Your task to perform on an android device: Open Amazon Image 0: 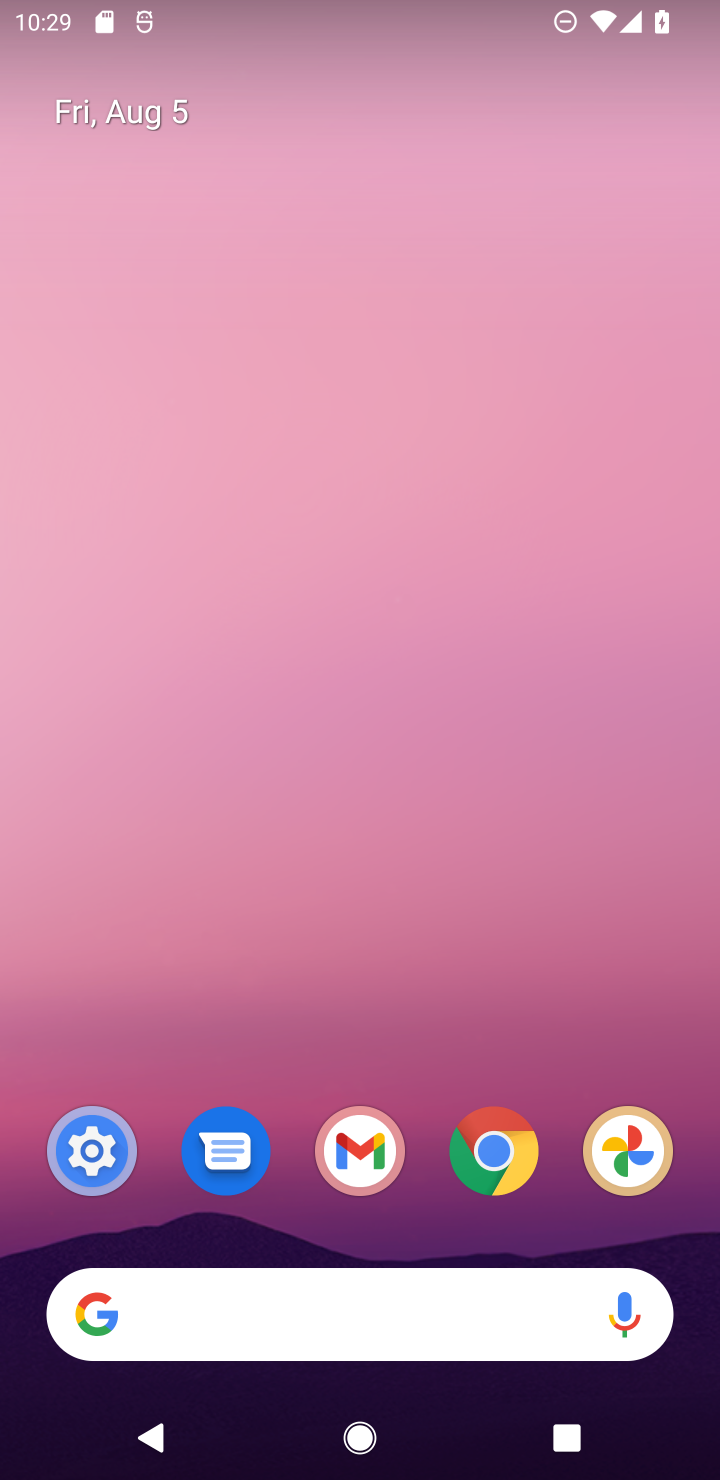
Step 0: click (479, 1138)
Your task to perform on an android device: Open Amazon Image 1: 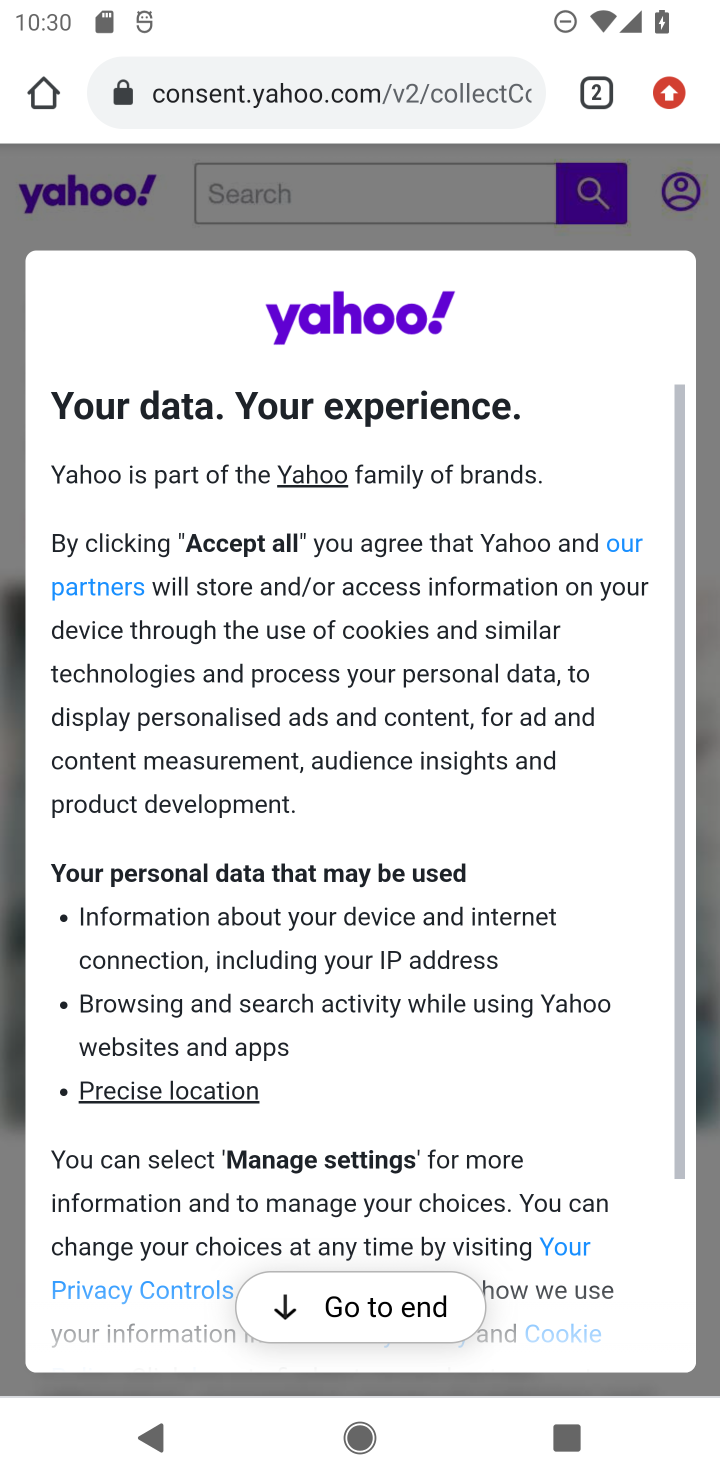
Step 1: click (369, 86)
Your task to perform on an android device: Open Amazon Image 2: 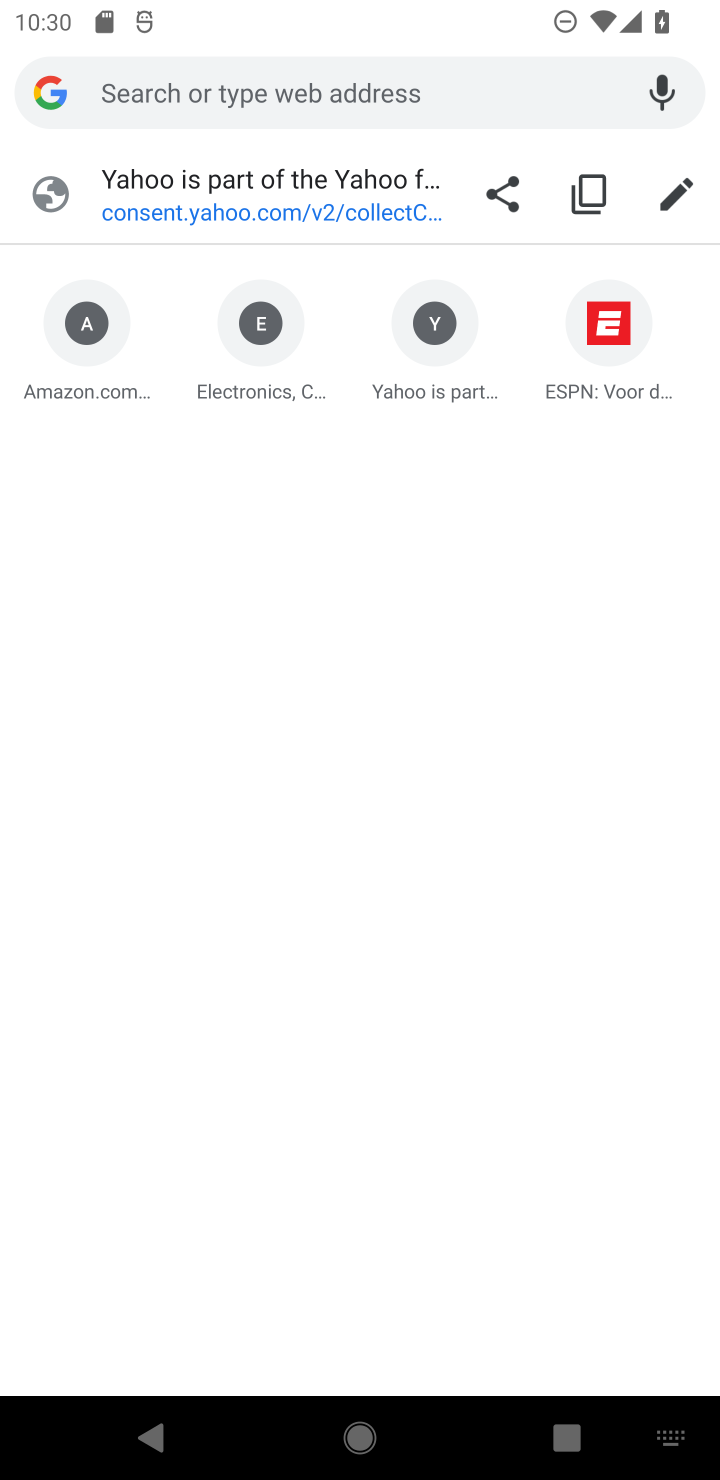
Step 2: type "www.amazon.com"
Your task to perform on an android device: Open Amazon Image 3: 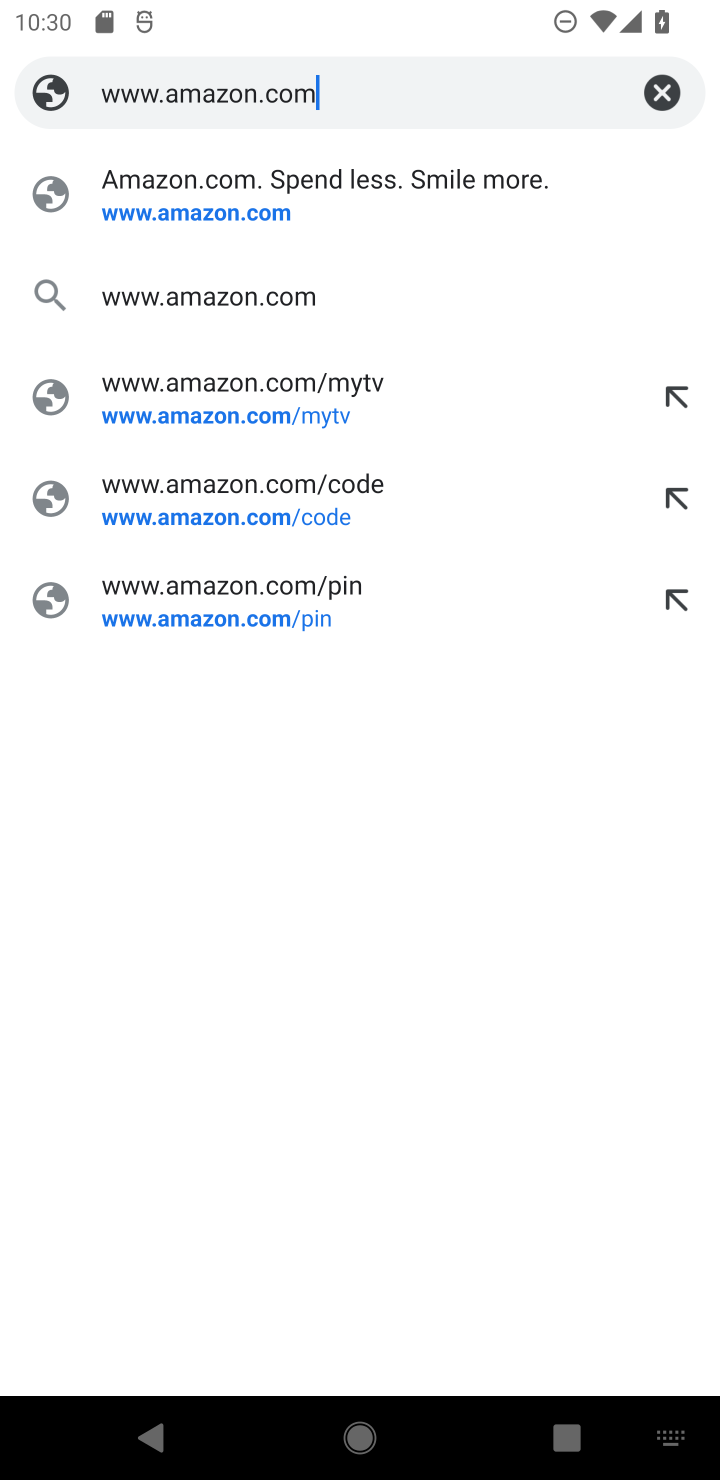
Step 3: click (254, 199)
Your task to perform on an android device: Open Amazon Image 4: 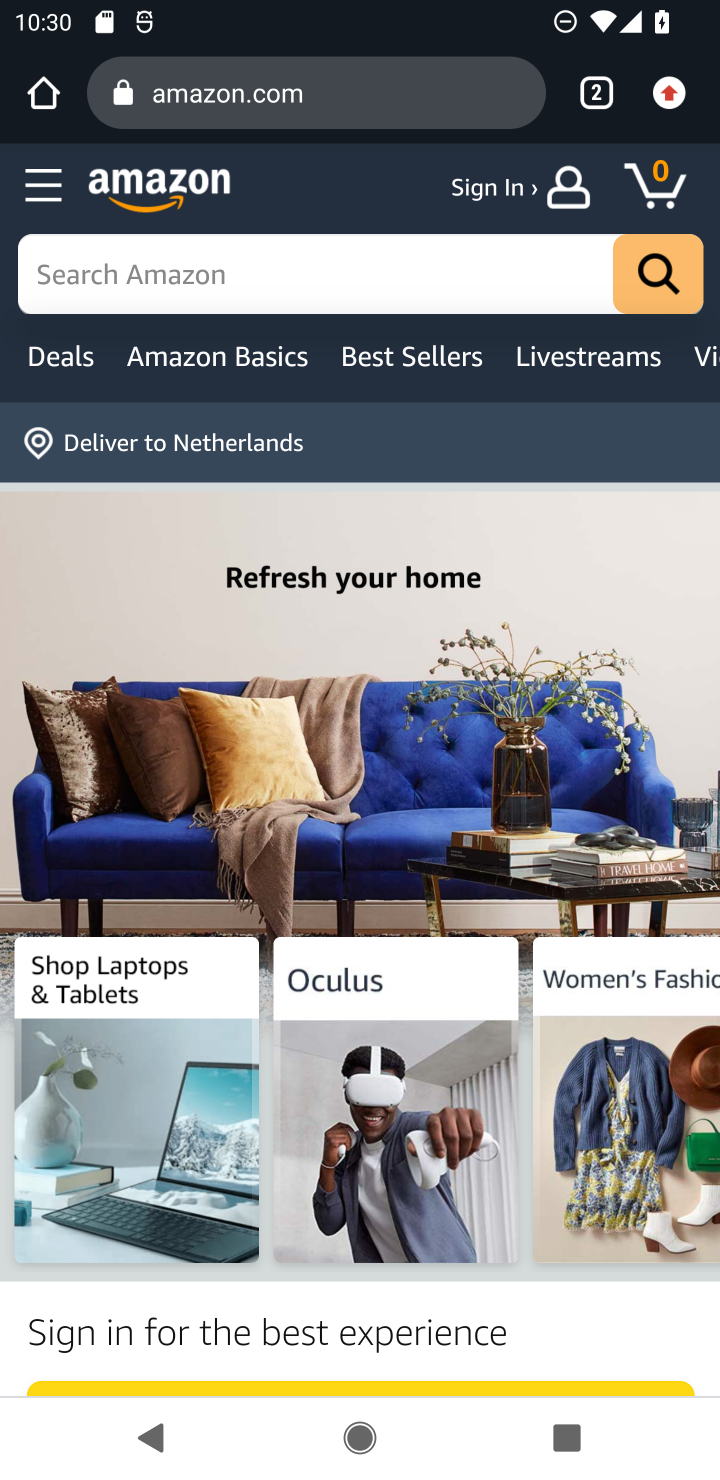
Step 4: task complete